Your task to perform on an android device: turn vacation reply on in the gmail app Image 0: 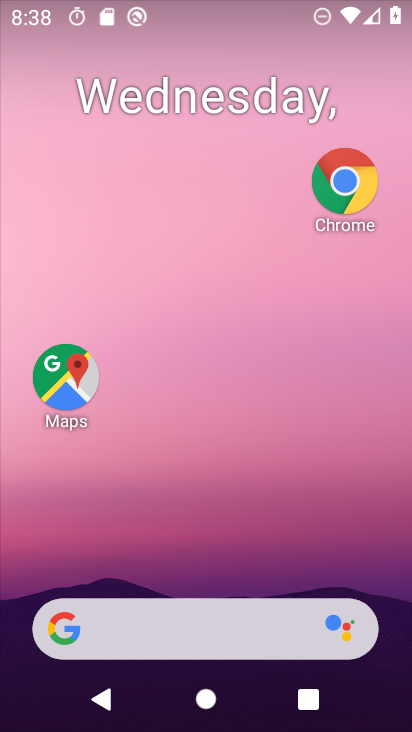
Step 0: drag from (250, 662) to (266, 168)
Your task to perform on an android device: turn vacation reply on in the gmail app Image 1: 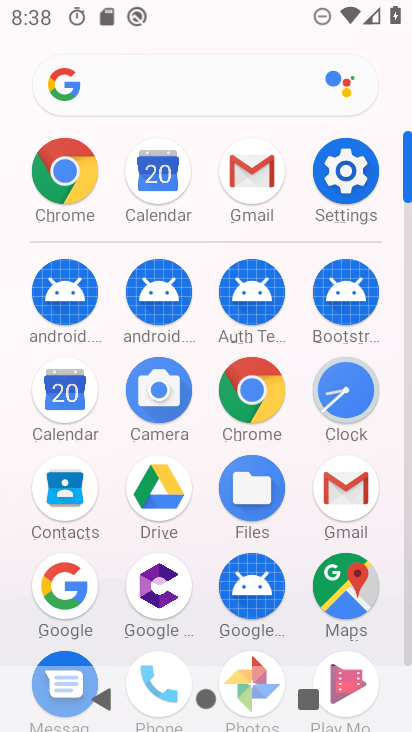
Step 1: click (330, 486)
Your task to perform on an android device: turn vacation reply on in the gmail app Image 2: 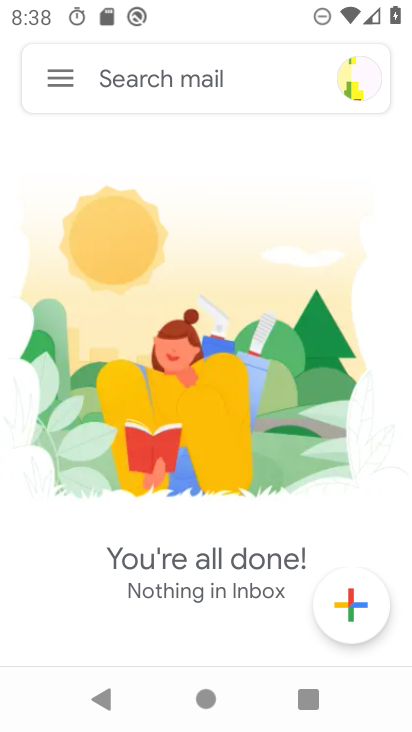
Step 2: click (59, 67)
Your task to perform on an android device: turn vacation reply on in the gmail app Image 3: 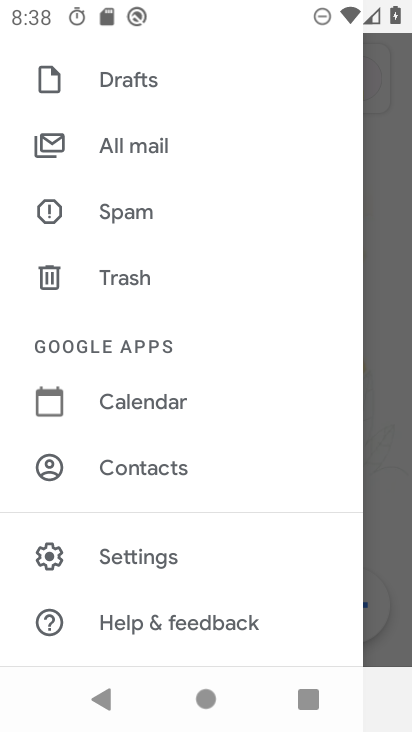
Step 3: click (142, 562)
Your task to perform on an android device: turn vacation reply on in the gmail app Image 4: 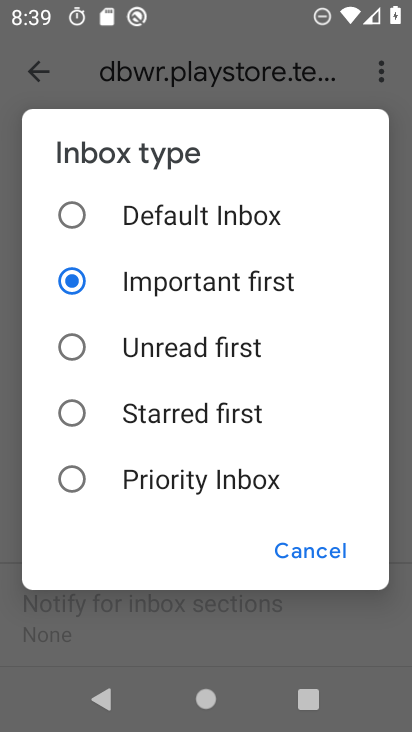
Step 4: click (285, 545)
Your task to perform on an android device: turn vacation reply on in the gmail app Image 5: 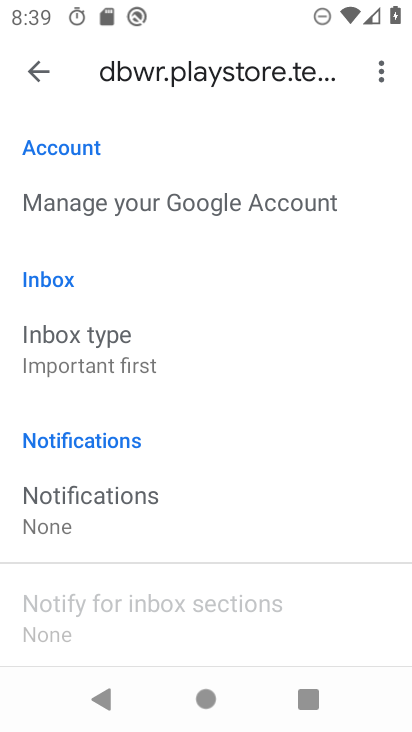
Step 5: drag from (189, 489) to (230, 255)
Your task to perform on an android device: turn vacation reply on in the gmail app Image 6: 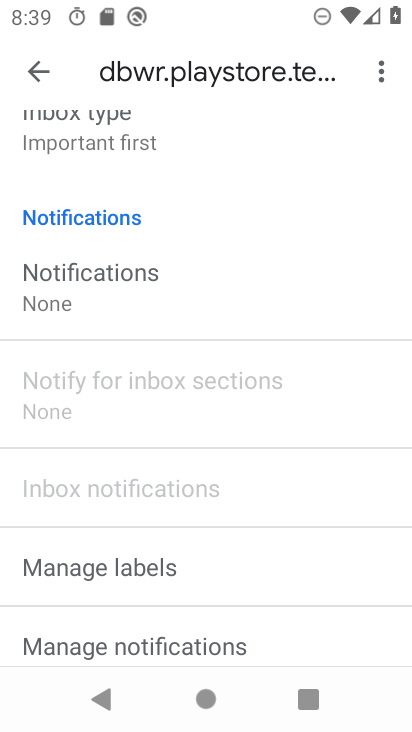
Step 6: drag from (206, 564) to (296, 283)
Your task to perform on an android device: turn vacation reply on in the gmail app Image 7: 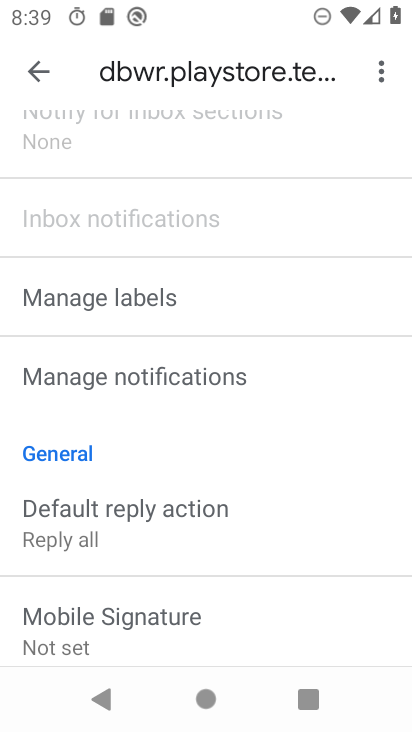
Step 7: drag from (210, 519) to (265, 379)
Your task to perform on an android device: turn vacation reply on in the gmail app Image 8: 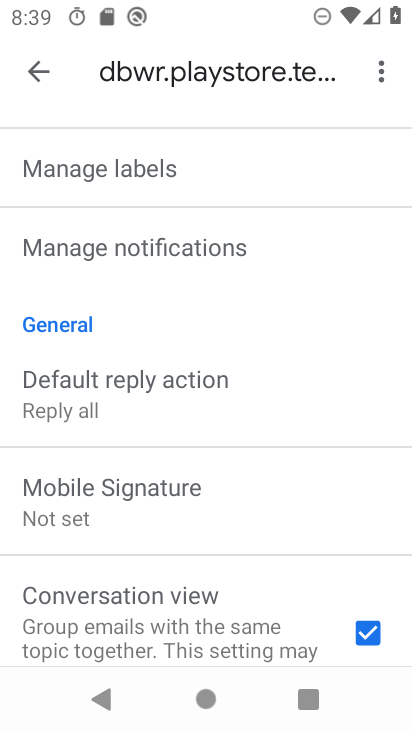
Step 8: drag from (196, 552) to (259, 306)
Your task to perform on an android device: turn vacation reply on in the gmail app Image 9: 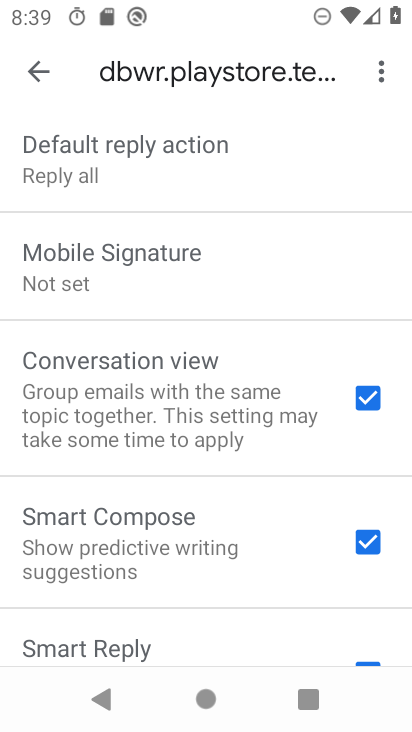
Step 9: drag from (214, 520) to (251, 359)
Your task to perform on an android device: turn vacation reply on in the gmail app Image 10: 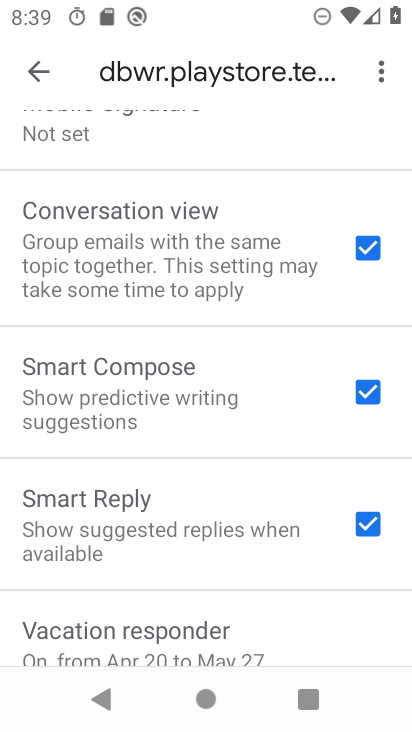
Step 10: click (174, 648)
Your task to perform on an android device: turn vacation reply on in the gmail app Image 11: 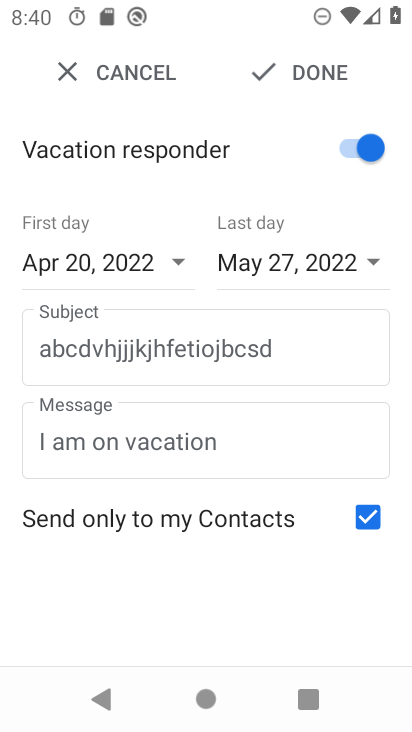
Step 11: task complete